Your task to perform on an android device: Show me popular videos on Youtube Image 0: 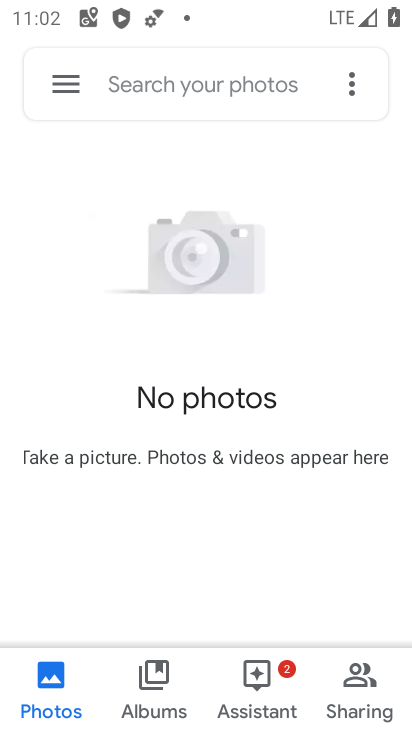
Step 0: press home button
Your task to perform on an android device: Show me popular videos on Youtube Image 1: 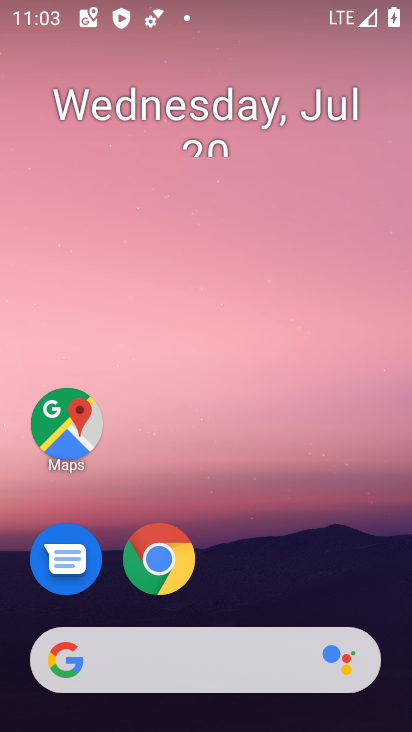
Step 1: drag from (200, 702) to (210, 64)
Your task to perform on an android device: Show me popular videos on Youtube Image 2: 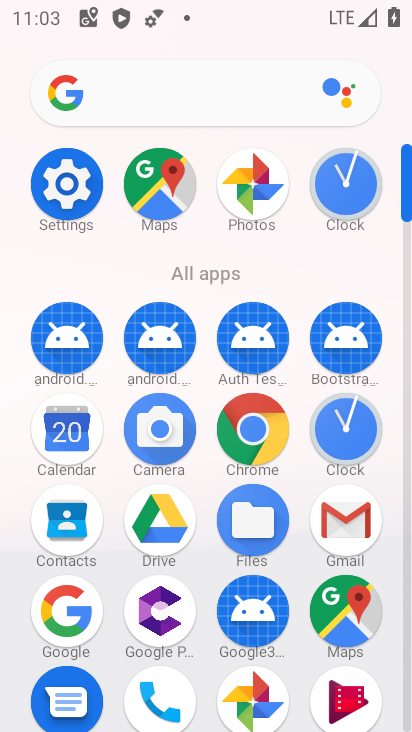
Step 2: drag from (280, 512) to (272, 60)
Your task to perform on an android device: Show me popular videos on Youtube Image 3: 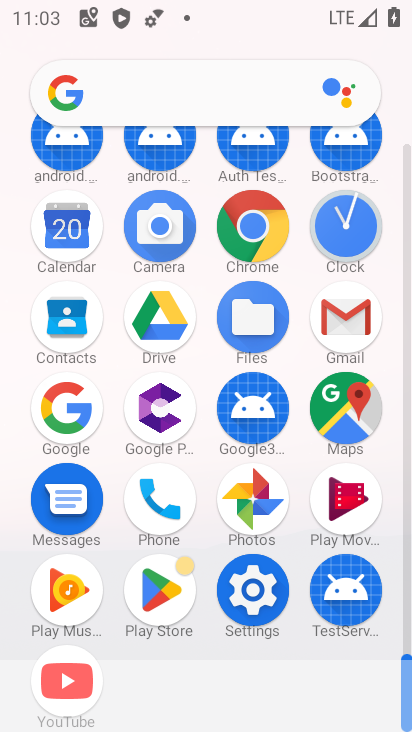
Step 3: click (68, 677)
Your task to perform on an android device: Show me popular videos on Youtube Image 4: 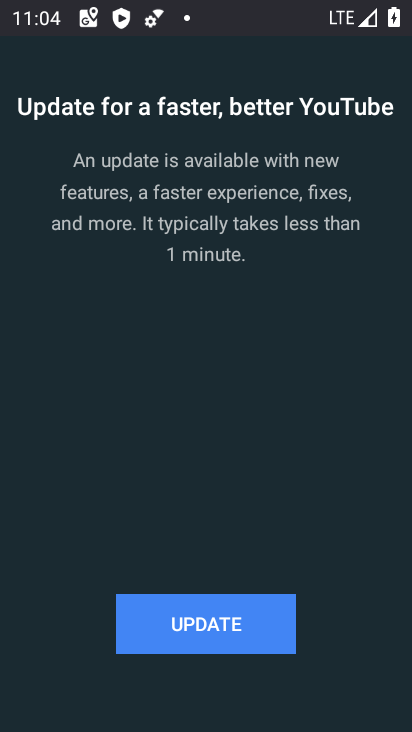
Step 4: task complete